Your task to perform on an android device: Show me recent news Image 0: 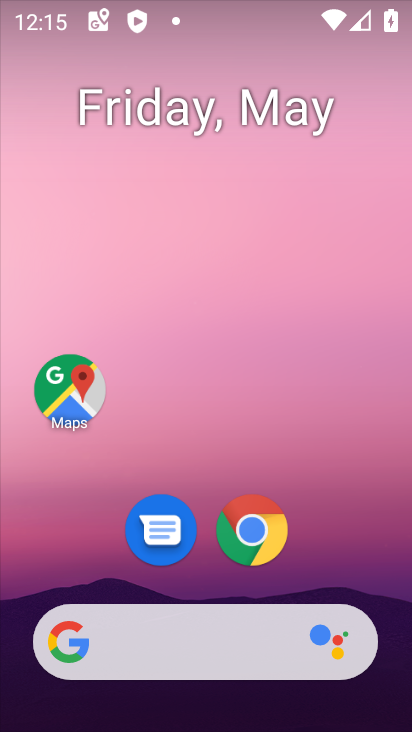
Step 0: click (329, 139)
Your task to perform on an android device: Show me recent news Image 1: 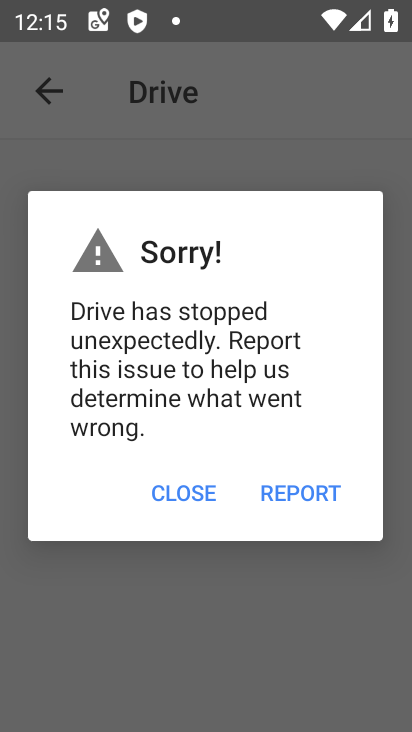
Step 1: press home button
Your task to perform on an android device: Show me recent news Image 2: 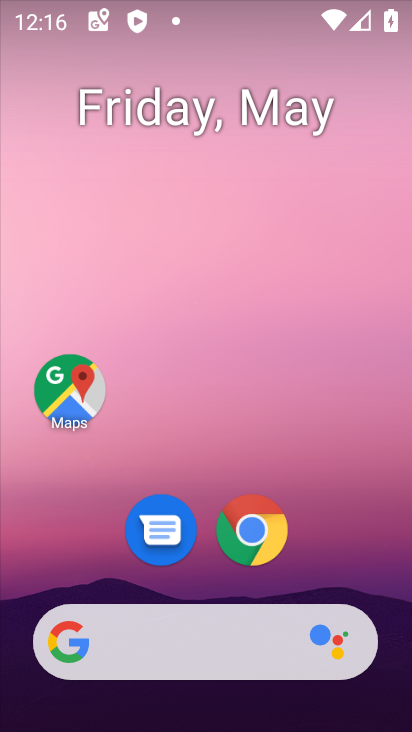
Step 2: drag from (328, 561) to (237, 104)
Your task to perform on an android device: Show me recent news Image 3: 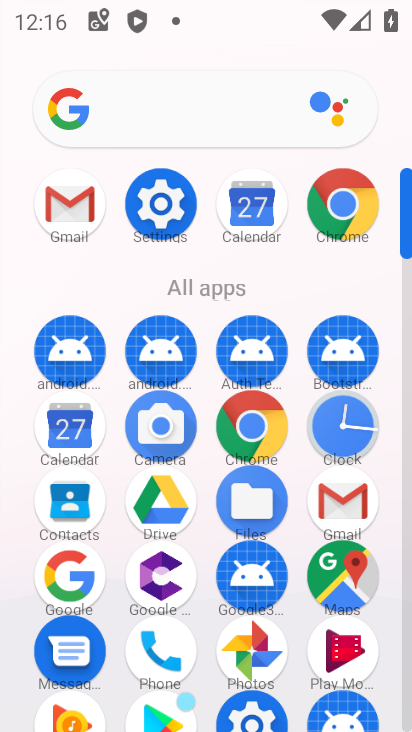
Step 3: click (62, 575)
Your task to perform on an android device: Show me recent news Image 4: 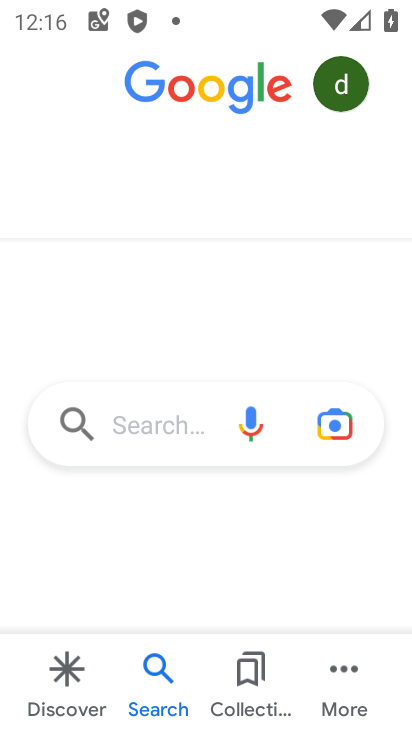
Step 4: click (142, 422)
Your task to perform on an android device: Show me recent news Image 5: 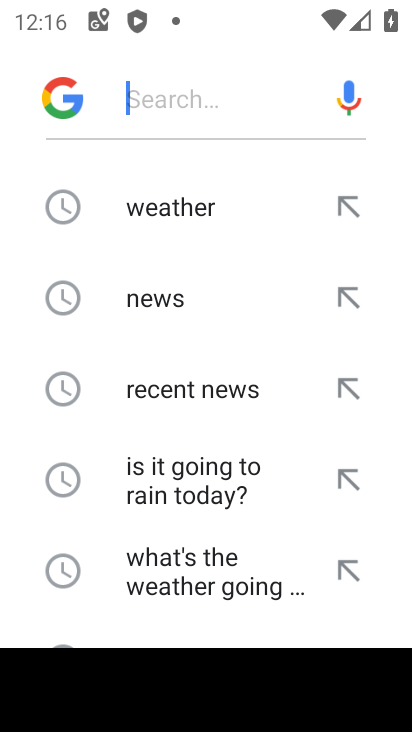
Step 5: type "recent news"
Your task to perform on an android device: Show me recent news Image 6: 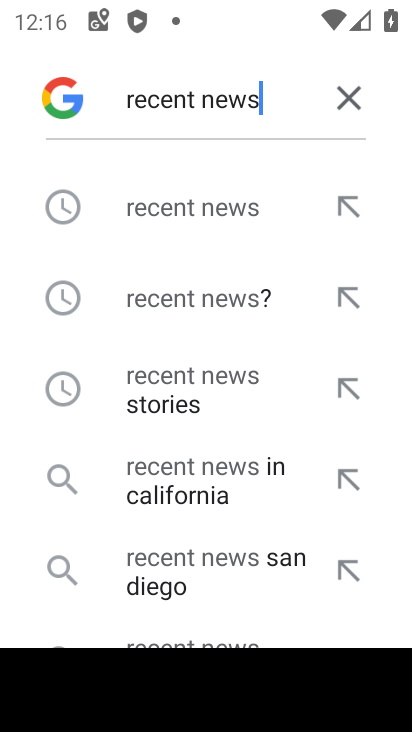
Step 6: click (187, 201)
Your task to perform on an android device: Show me recent news Image 7: 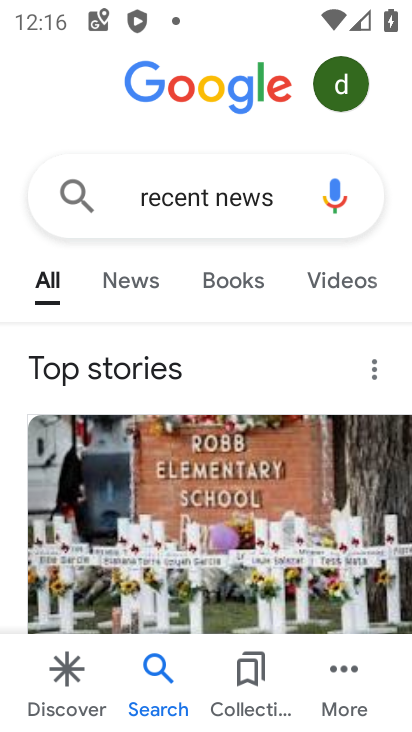
Step 7: drag from (204, 525) to (248, 325)
Your task to perform on an android device: Show me recent news Image 8: 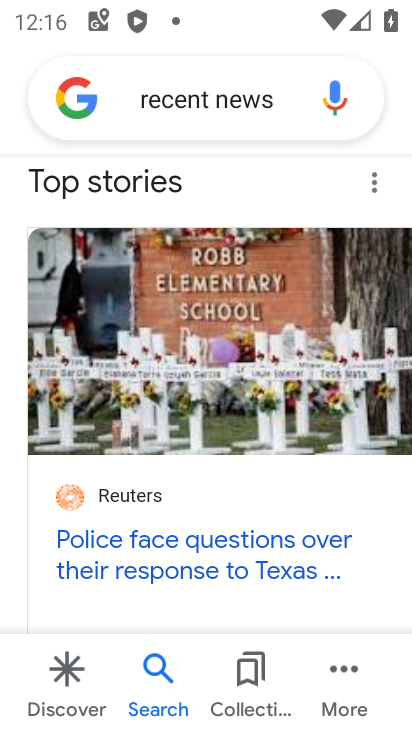
Step 8: click (216, 542)
Your task to perform on an android device: Show me recent news Image 9: 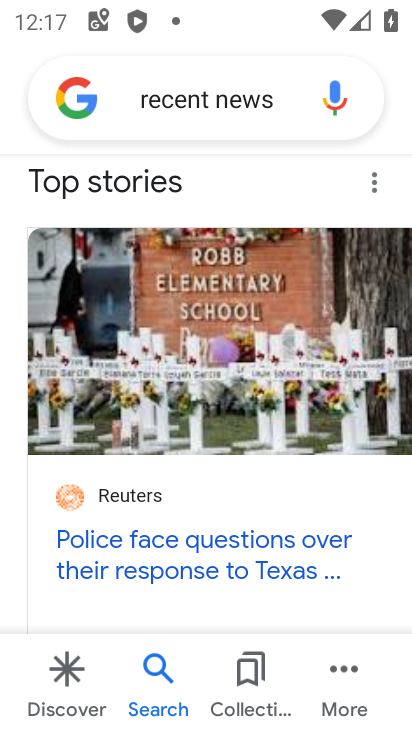
Step 9: task complete